Your task to perform on an android device: uninstall "Adobe Acrobat Reader: Edit PDF" Image 0: 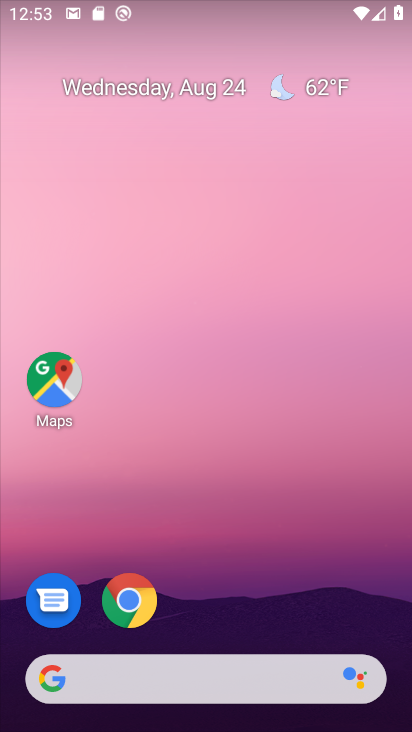
Step 0: drag from (290, 612) to (248, 1)
Your task to perform on an android device: uninstall "Adobe Acrobat Reader: Edit PDF" Image 1: 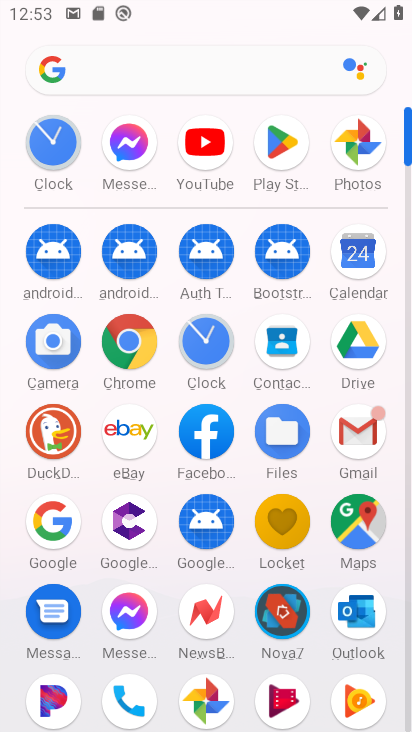
Step 1: click (271, 148)
Your task to perform on an android device: uninstall "Adobe Acrobat Reader: Edit PDF" Image 2: 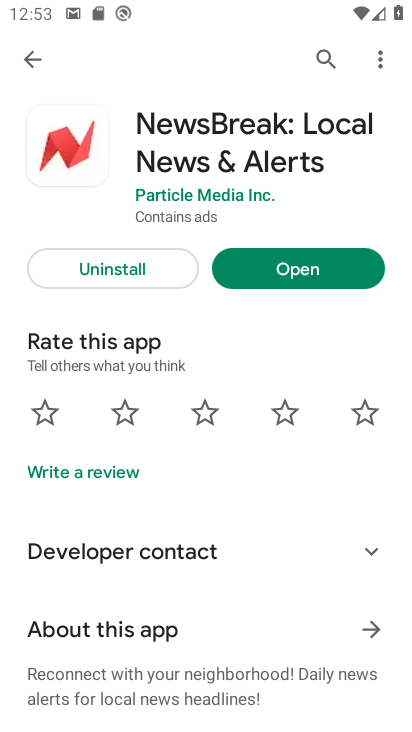
Step 2: click (322, 58)
Your task to perform on an android device: uninstall "Adobe Acrobat Reader: Edit PDF" Image 3: 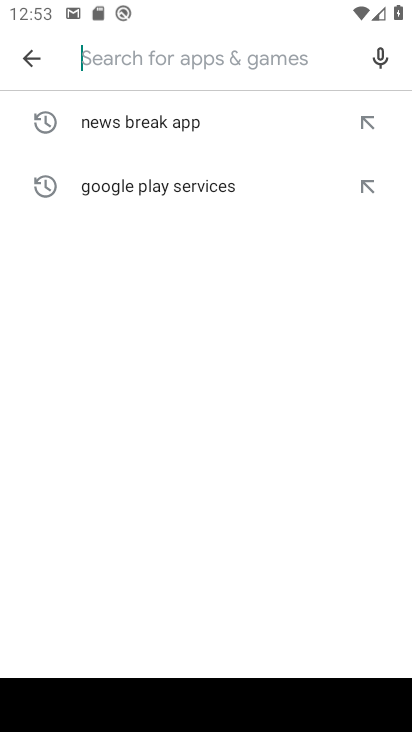
Step 3: type "adobe reader"
Your task to perform on an android device: uninstall "Adobe Acrobat Reader: Edit PDF" Image 4: 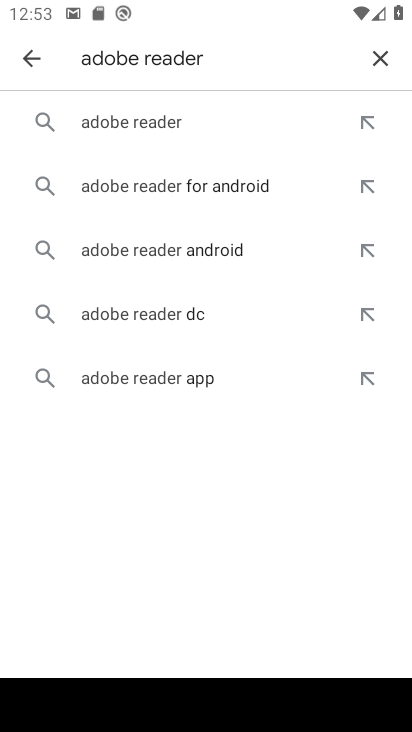
Step 4: click (217, 108)
Your task to perform on an android device: uninstall "Adobe Acrobat Reader: Edit PDF" Image 5: 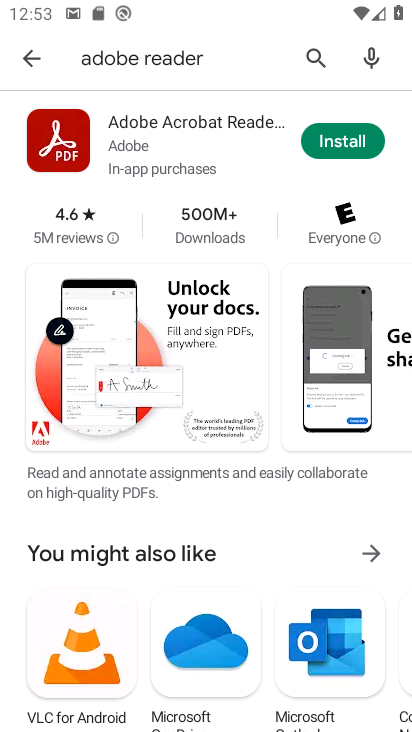
Step 5: click (358, 137)
Your task to perform on an android device: uninstall "Adobe Acrobat Reader: Edit PDF" Image 6: 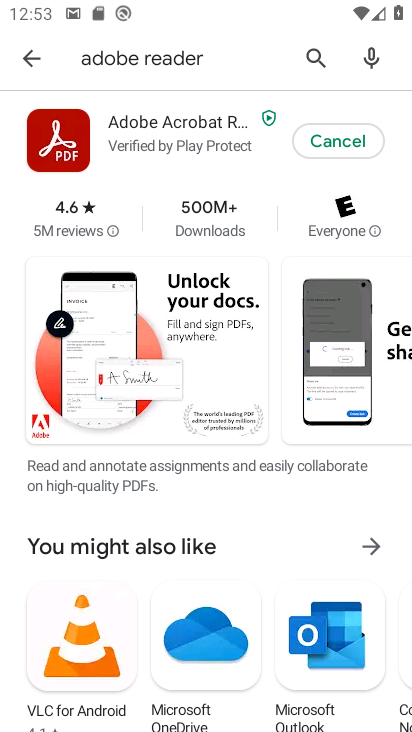
Step 6: task complete